Your task to perform on an android device: Go to Amazon Image 0: 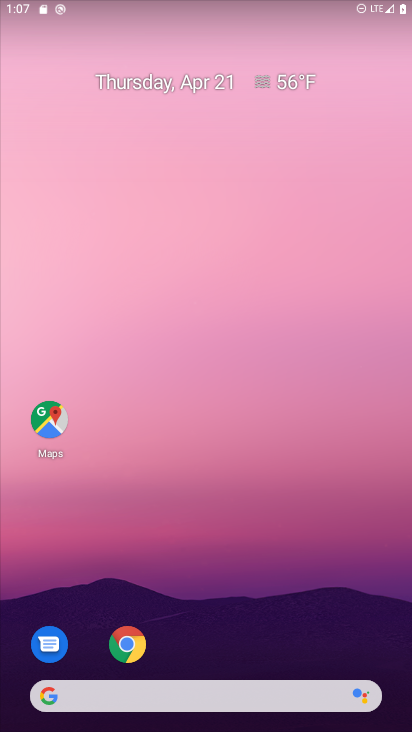
Step 0: click (122, 649)
Your task to perform on an android device: Go to Amazon Image 1: 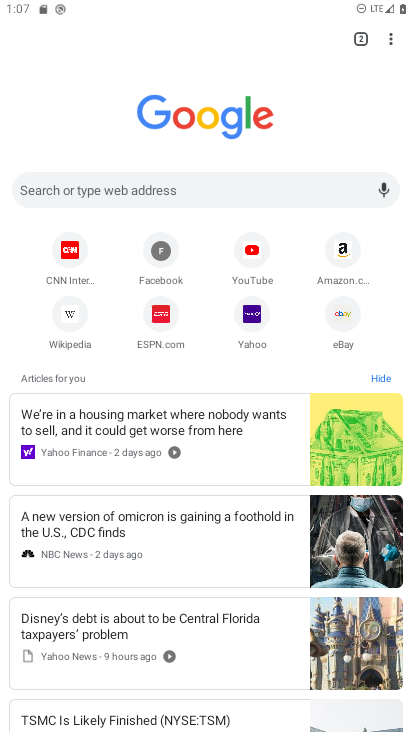
Step 1: click (192, 192)
Your task to perform on an android device: Go to Amazon Image 2: 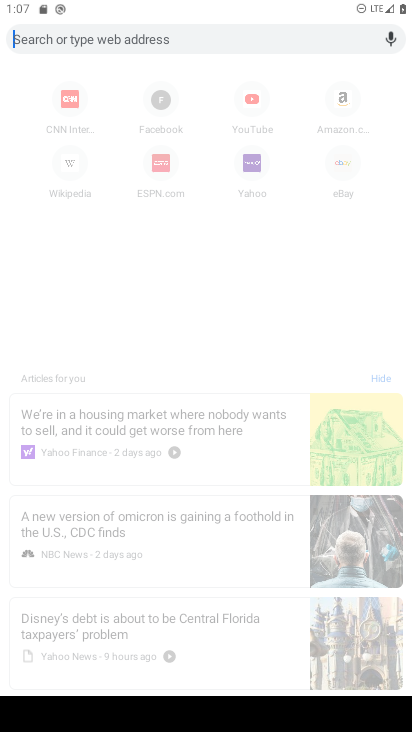
Step 2: type "amazon"
Your task to perform on an android device: Go to Amazon Image 3: 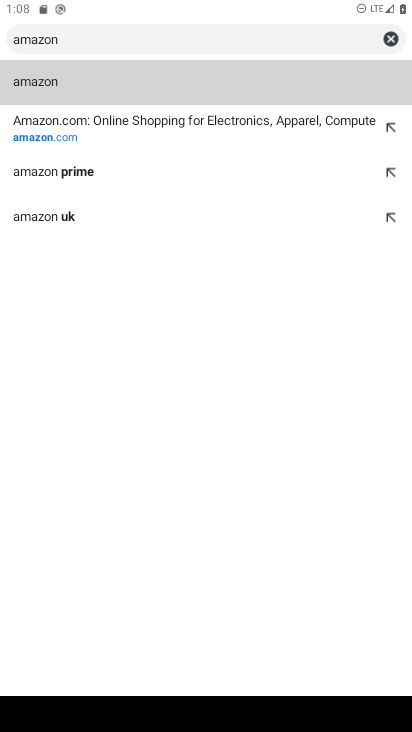
Step 3: click (101, 92)
Your task to perform on an android device: Go to Amazon Image 4: 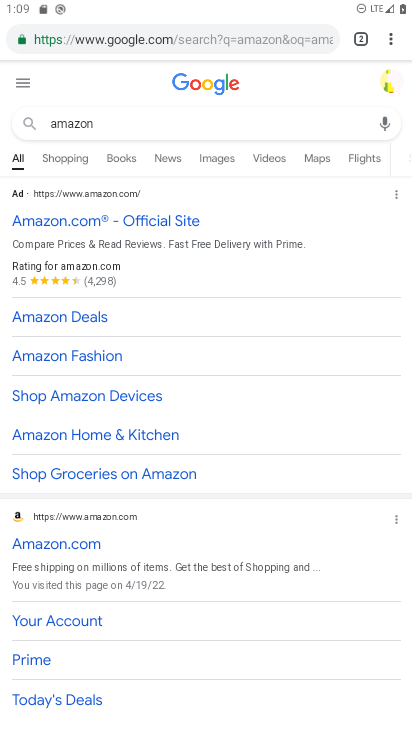
Step 4: task complete